Your task to perform on an android device: Open Yahoo.com Image 0: 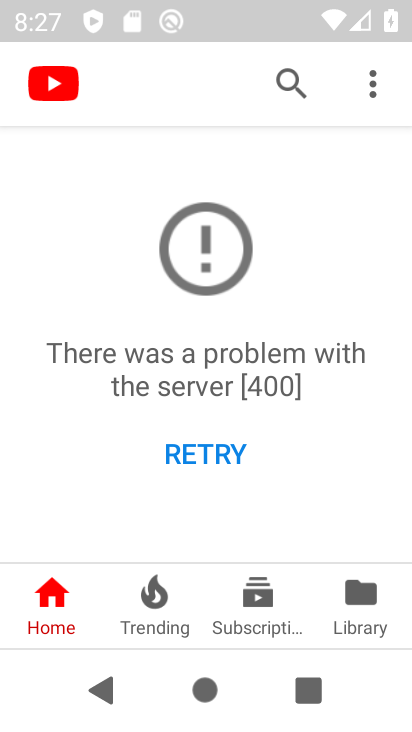
Step 0: press back button
Your task to perform on an android device: Open Yahoo.com Image 1: 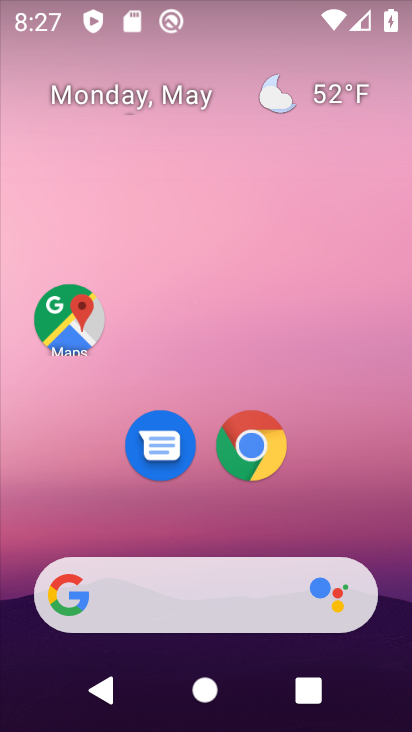
Step 1: click (269, 442)
Your task to perform on an android device: Open Yahoo.com Image 2: 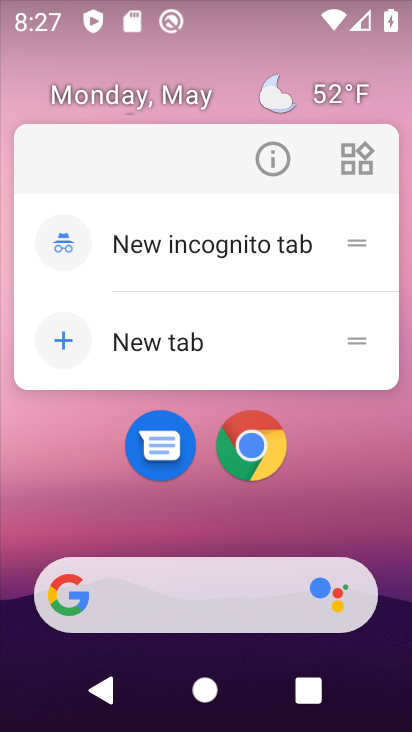
Step 2: click (247, 459)
Your task to perform on an android device: Open Yahoo.com Image 3: 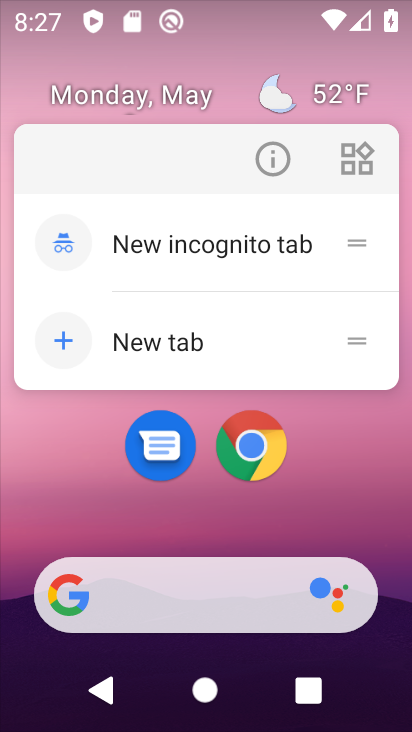
Step 3: click (285, 437)
Your task to perform on an android device: Open Yahoo.com Image 4: 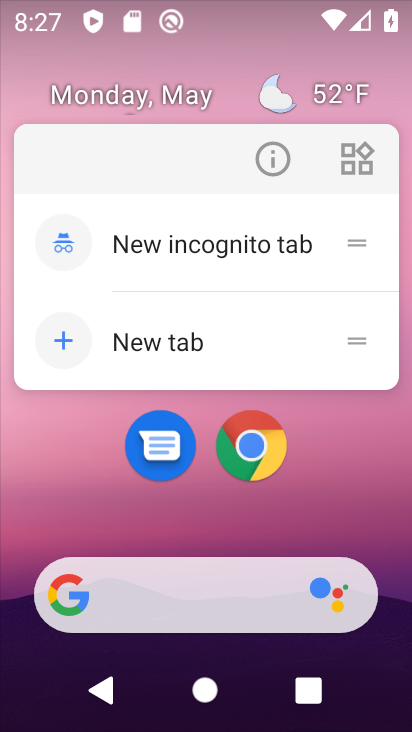
Step 4: click (274, 448)
Your task to perform on an android device: Open Yahoo.com Image 5: 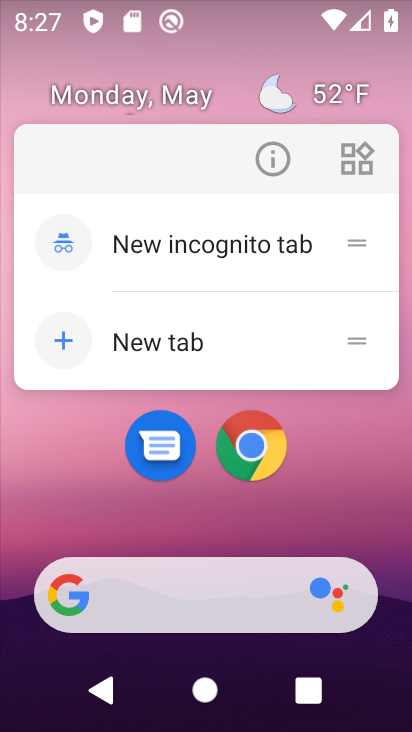
Step 5: click (257, 459)
Your task to perform on an android device: Open Yahoo.com Image 6: 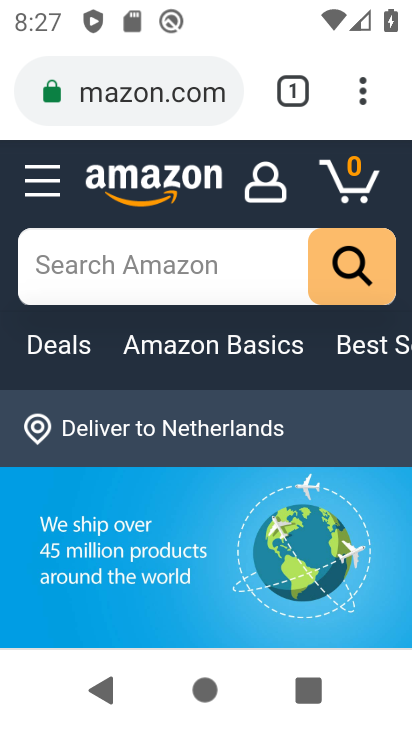
Step 6: drag from (371, 91) to (309, 179)
Your task to perform on an android device: Open Yahoo.com Image 7: 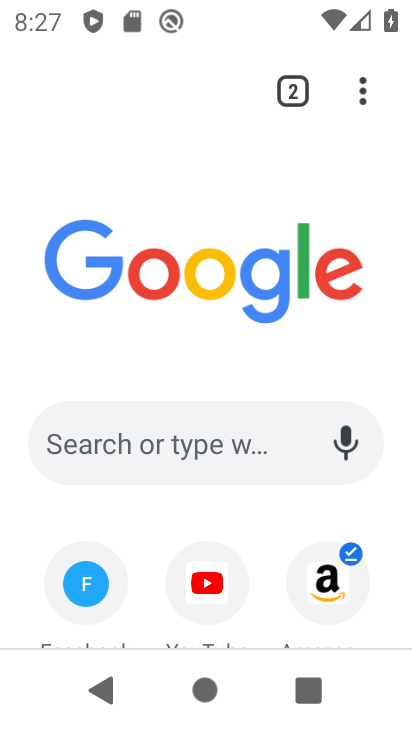
Step 7: drag from (404, 584) to (406, 337)
Your task to perform on an android device: Open Yahoo.com Image 8: 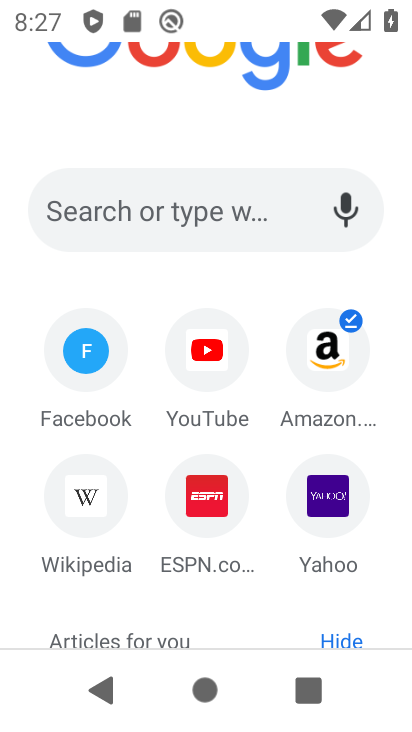
Step 8: drag from (381, 587) to (409, 387)
Your task to perform on an android device: Open Yahoo.com Image 9: 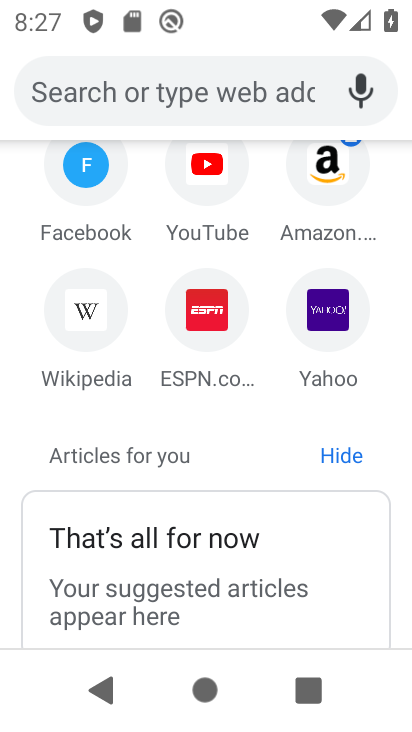
Step 9: click (339, 357)
Your task to perform on an android device: Open Yahoo.com Image 10: 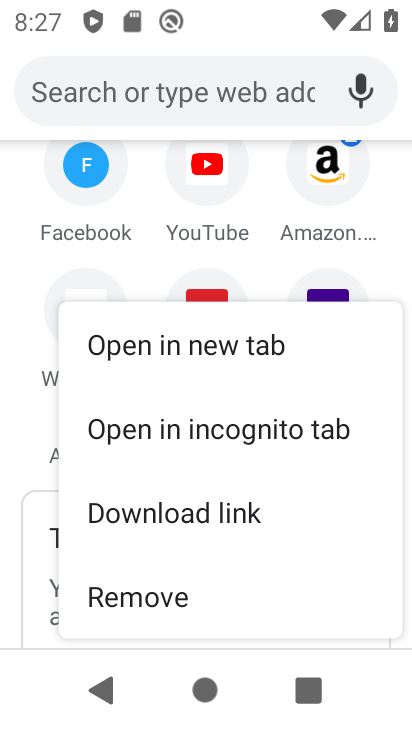
Step 10: click (337, 290)
Your task to perform on an android device: Open Yahoo.com Image 11: 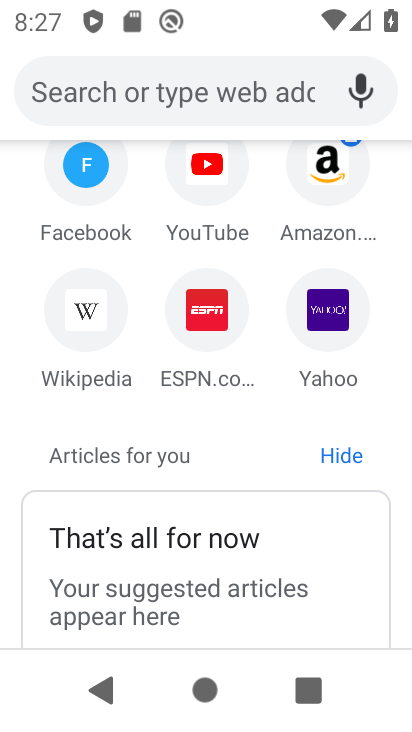
Step 11: click (334, 299)
Your task to perform on an android device: Open Yahoo.com Image 12: 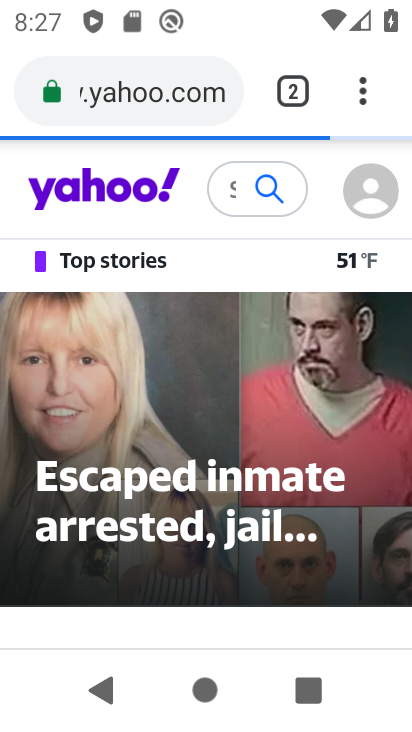
Step 12: task complete